Your task to perform on an android device: Go to wifi settings Image 0: 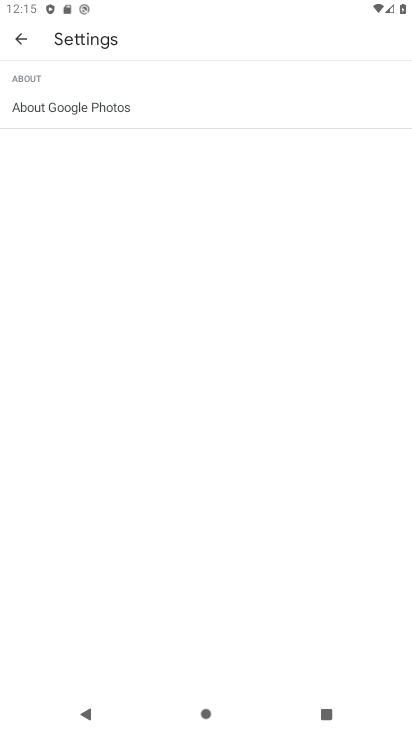
Step 0: press home button
Your task to perform on an android device: Go to wifi settings Image 1: 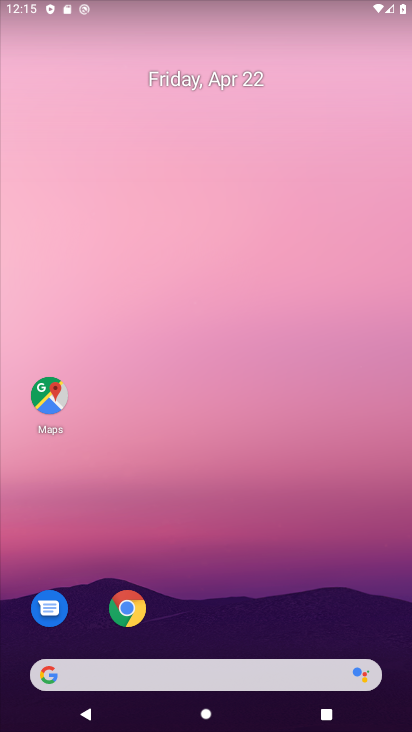
Step 1: drag from (274, 603) to (202, 60)
Your task to perform on an android device: Go to wifi settings Image 2: 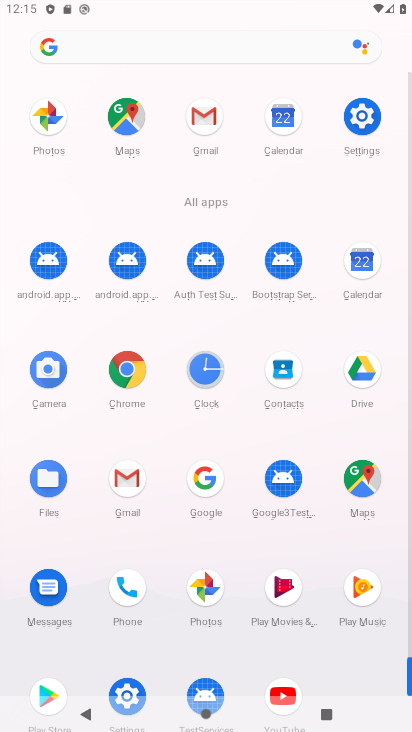
Step 2: click (366, 113)
Your task to perform on an android device: Go to wifi settings Image 3: 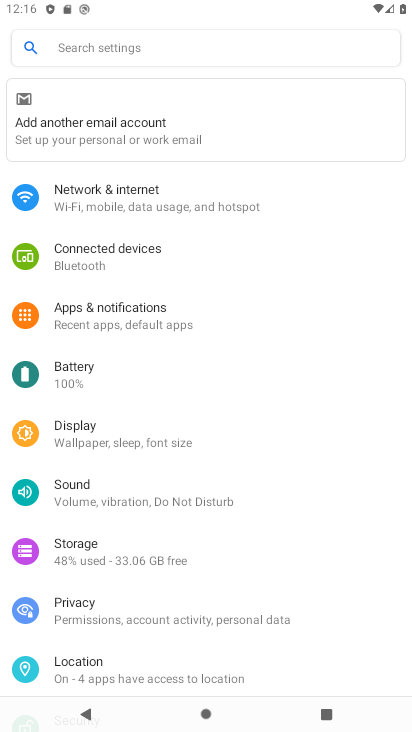
Step 3: click (166, 196)
Your task to perform on an android device: Go to wifi settings Image 4: 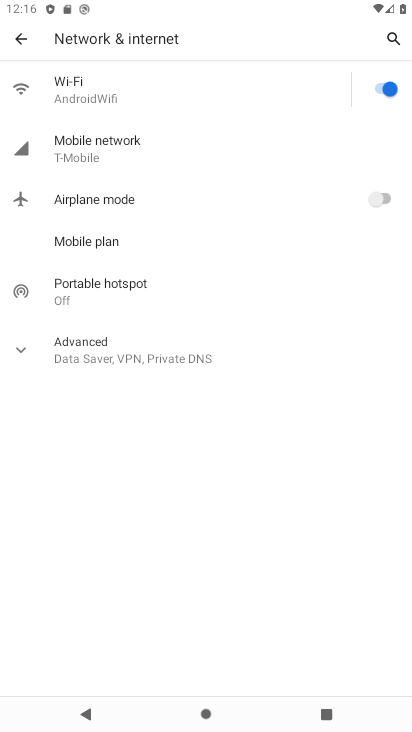
Step 4: click (125, 89)
Your task to perform on an android device: Go to wifi settings Image 5: 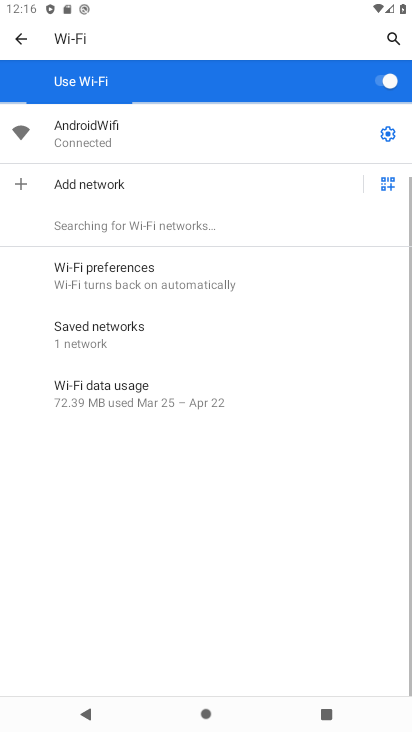
Step 5: task complete